Your task to perform on an android device: check out phone information Image 0: 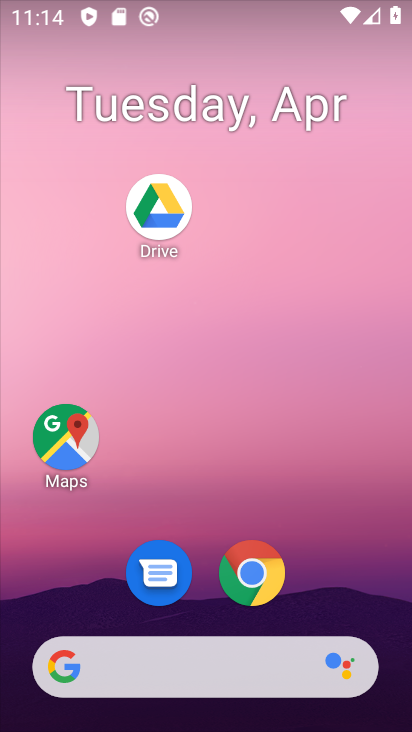
Step 0: drag from (353, 594) to (357, 67)
Your task to perform on an android device: check out phone information Image 1: 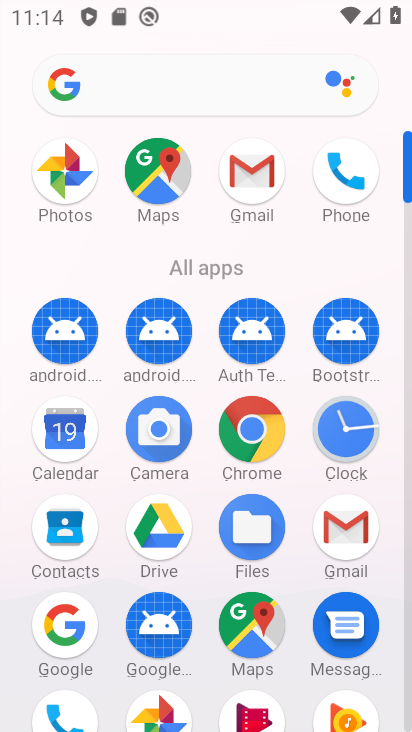
Step 1: drag from (391, 568) to (394, 194)
Your task to perform on an android device: check out phone information Image 2: 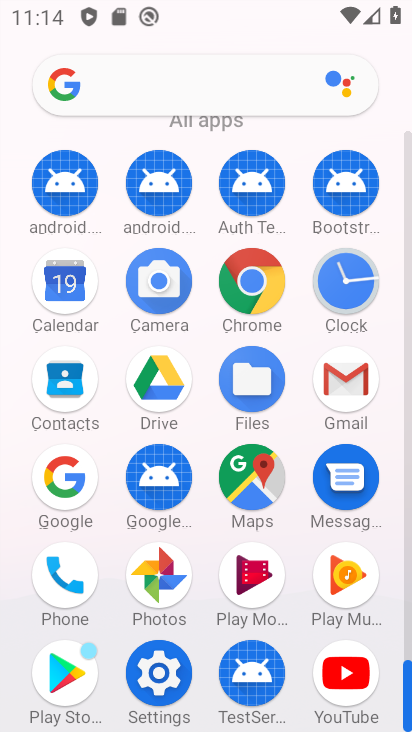
Step 2: click (65, 581)
Your task to perform on an android device: check out phone information Image 3: 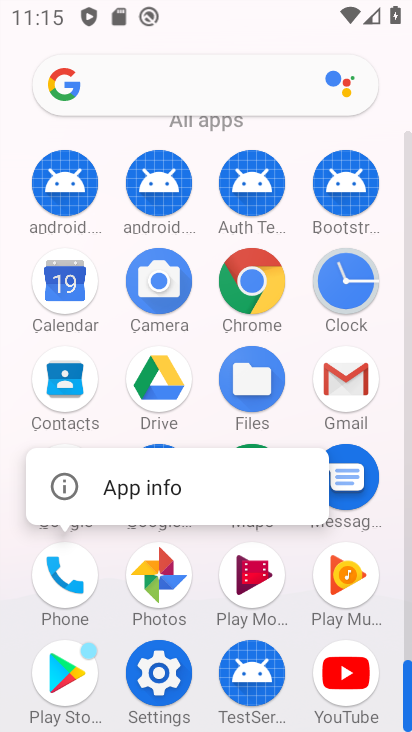
Step 3: click (60, 564)
Your task to perform on an android device: check out phone information Image 4: 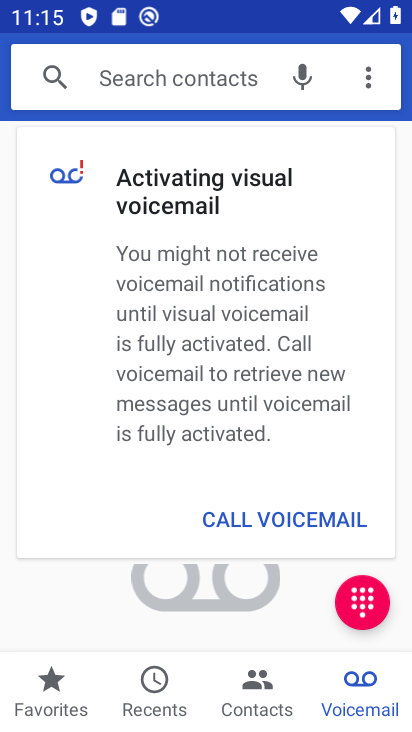
Step 4: click (153, 695)
Your task to perform on an android device: check out phone information Image 5: 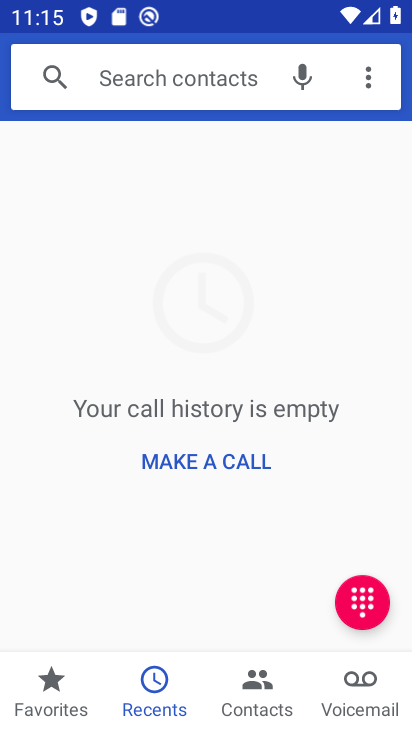
Step 5: click (249, 693)
Your task to perform on an android device: check out phone information Image 6: 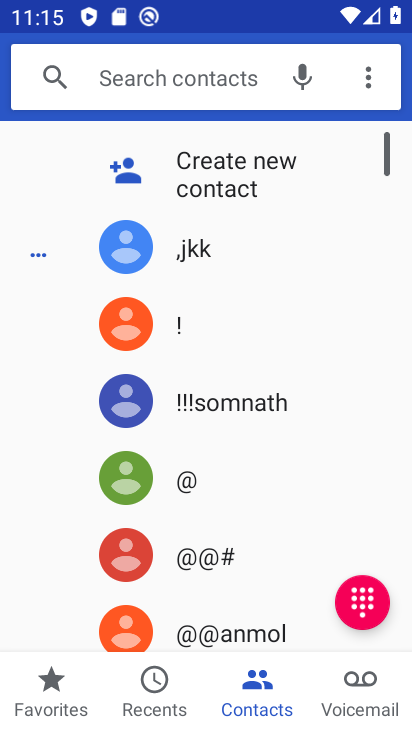
Step 6: task complete